Your task to perform on an android device: turn off priority inbox in the gmail app Image 0: 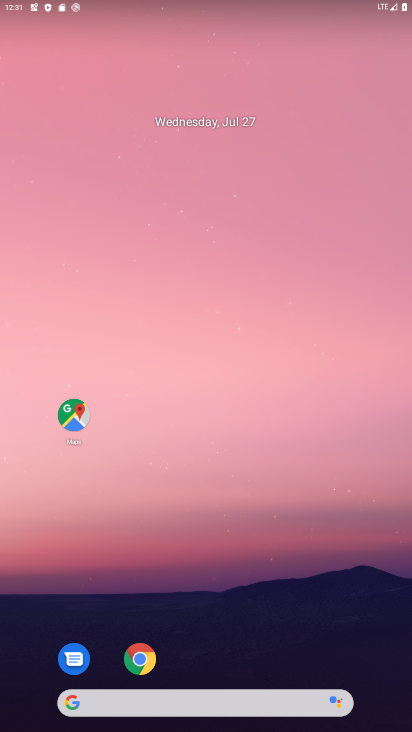
Step 0: drag from (247, 660) to (409, 5)
Your task to perform on an android device: turn off priority inbox in the gmail app Image 1: 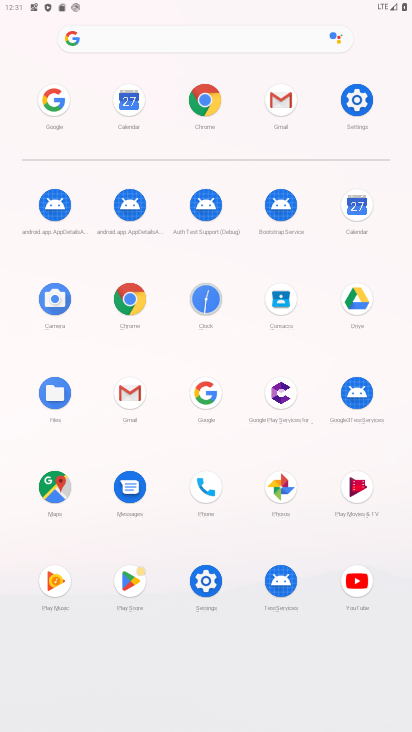
Step 1: click (122, 391)
Your task to perform on an android device: turn off priority inbox in the gmail app Image 2: 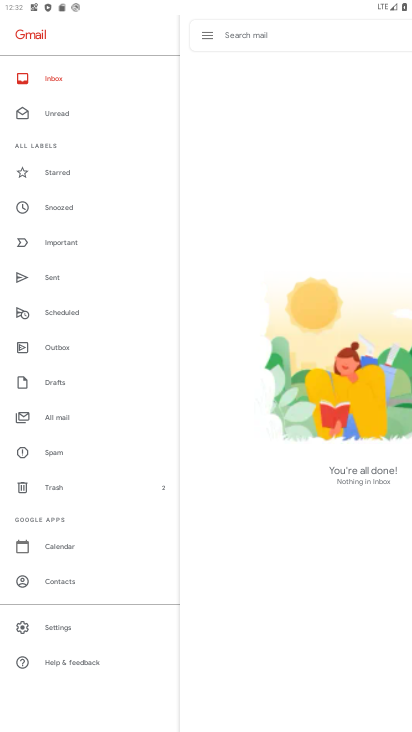
Step 2: click (65, 629)
Your task to perform on an android device: turn off priority inbox in the gmail app Image 3: 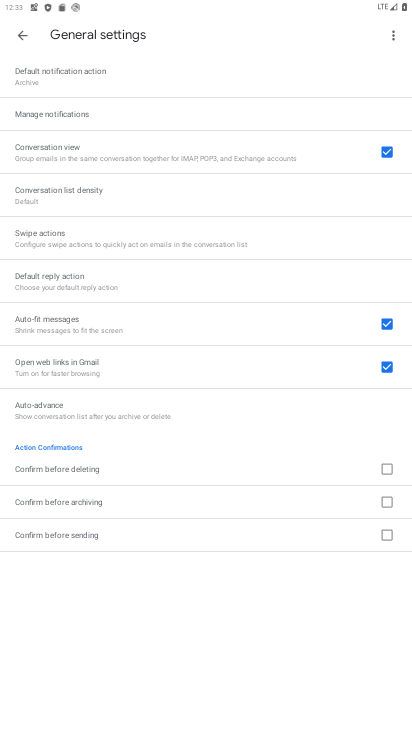
Step 3: click (64, 290)
Your task to perform on an android device: turn off priority inbox in the gmail app Image 4: 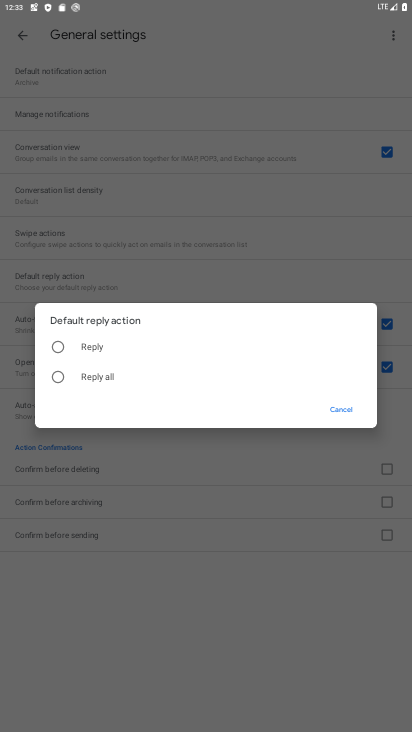
Step 4: click (135, 260)
Your task to perform on an android device: turn off priority inbox in the gmail app Image 5: 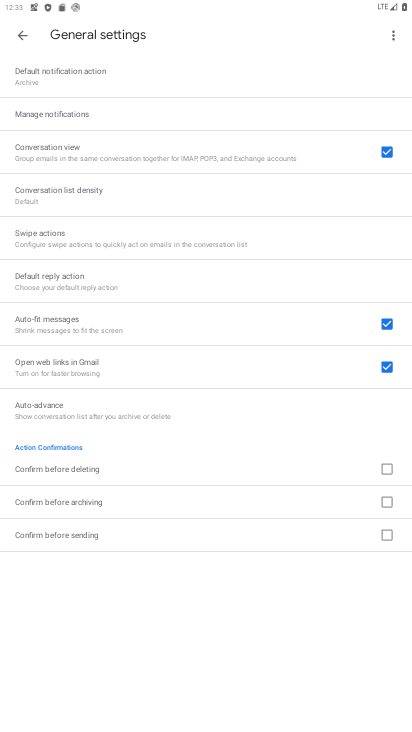
Step 5: click (80, 206)
Your task to perform on an android device: turn off priority inbox in the gmail app Image 6: 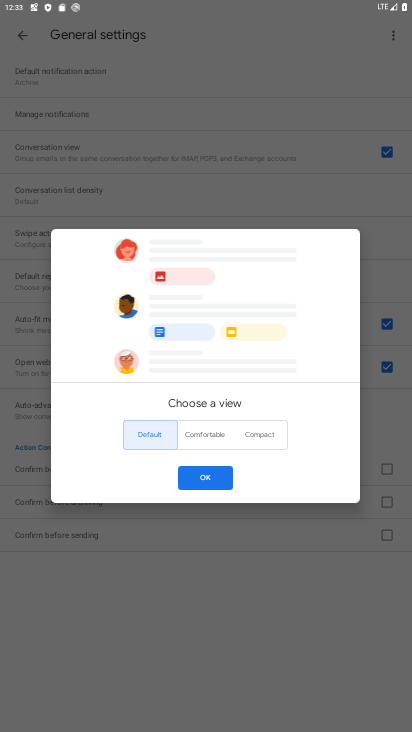
Step 6: click (128, 147)
Your task to perform on an android device: turn off priority inbox in the gmail app Image 7: 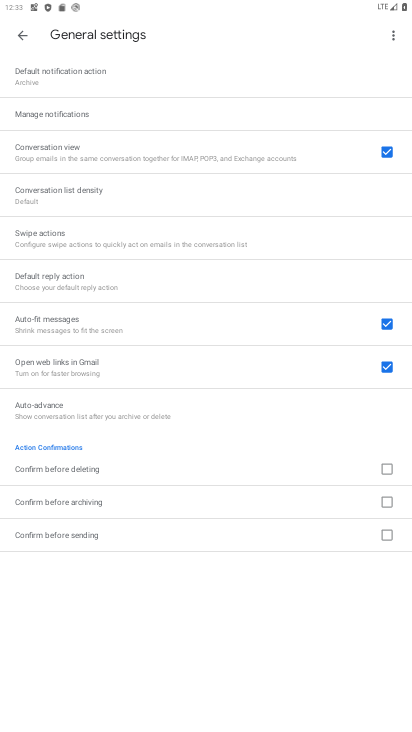
Step 7: task complete